Your task to perform on an android device: turn off translation in the chrome app Image 0: 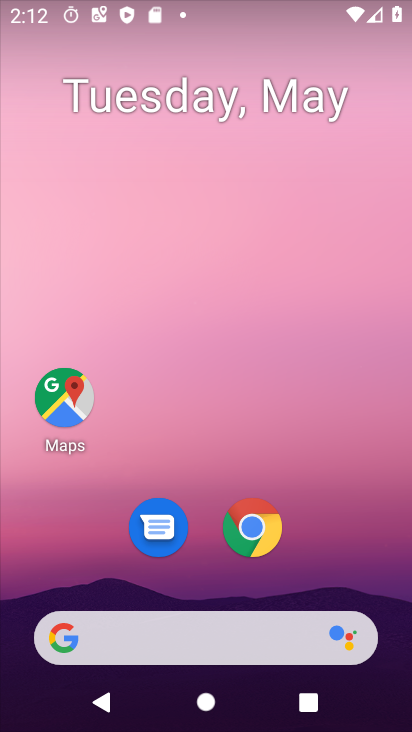
Step 0: drag from (241, 635) to (246, 199)
Your task to perform on an android device: turn off translation in the chrome app Image 1: 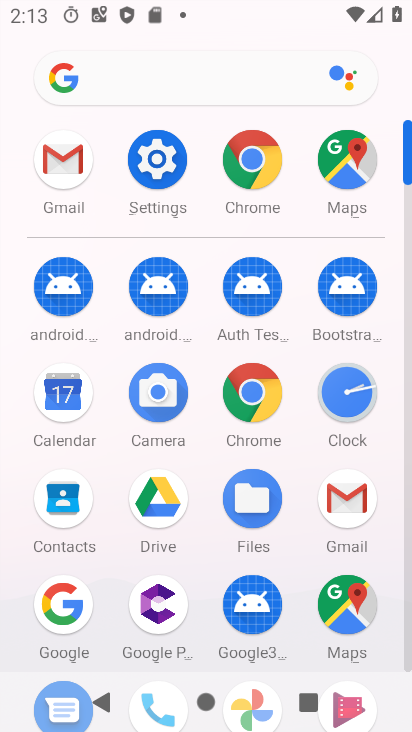
Step 1: click (235, 394)
Your task to perform on an android device: turn off translation in the chrome app Image 2: 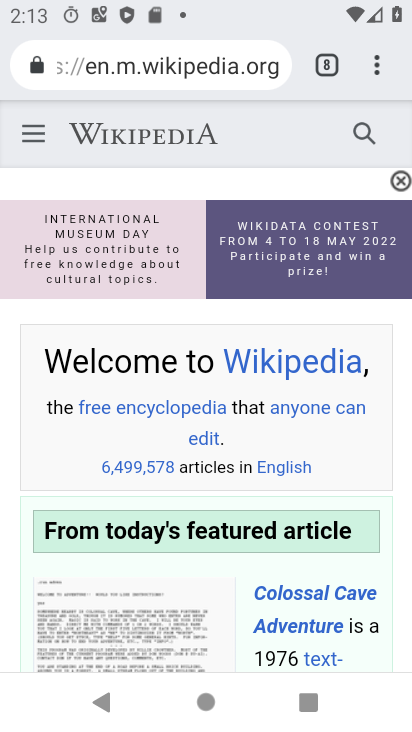
Step 2: click (369, 77)
Your task to perform on an android device: turn off translation in the chrome app Image 3: 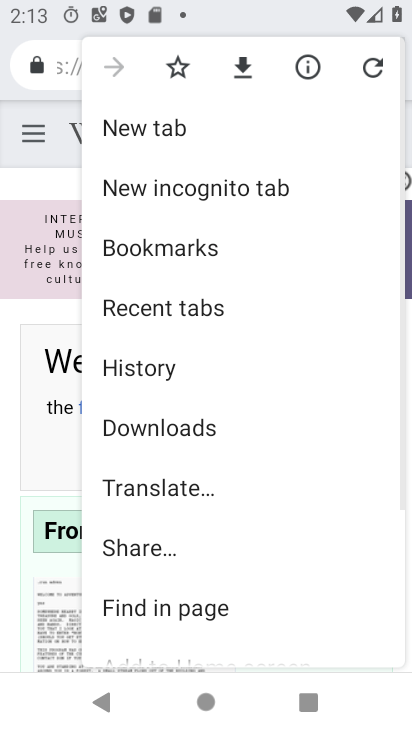
Step 3: drag from (172, 474) to (290, 263)
Your task to perform on an android device: turn off translation in the chrome app Image 4: 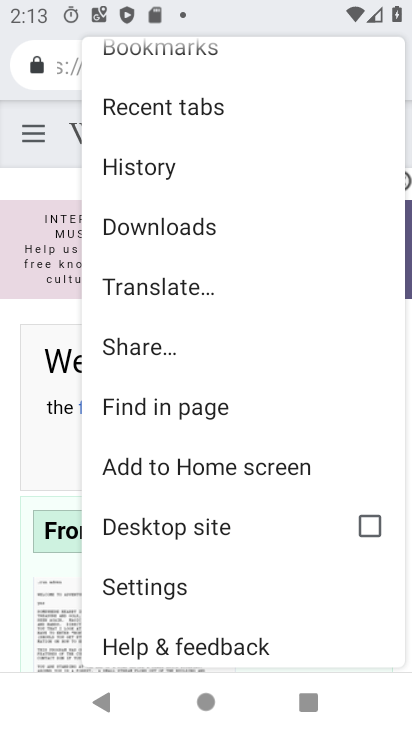
Step 4: click (146, 590)
Your task to perform on an android device: turn off translation in the chrome app Image 5: 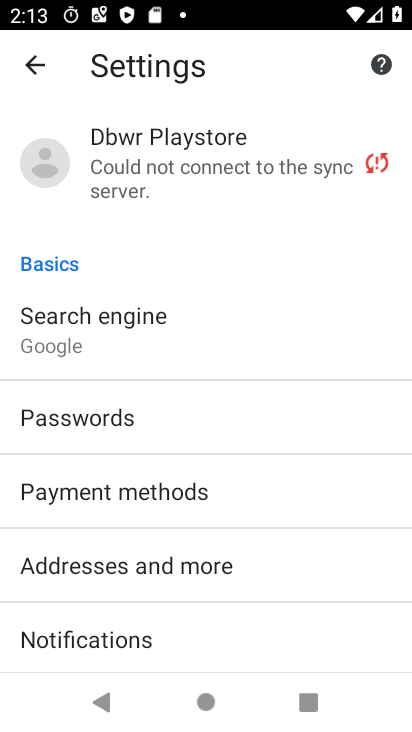
Step 5: drag from (163, 572) to (237, 337)
Your task to perform on an android device: turn off translation in the chrome app Image 6: 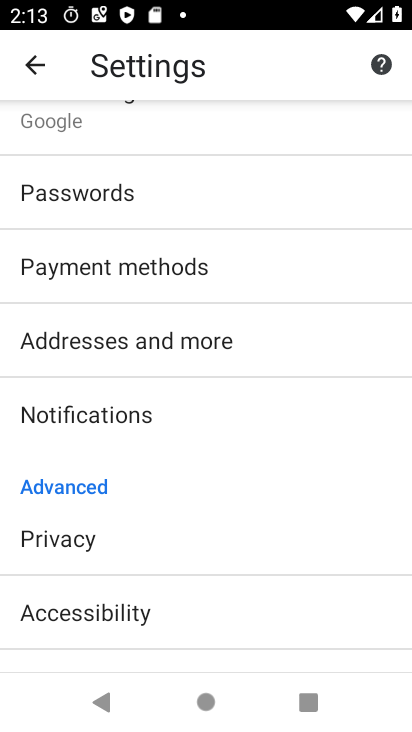
Step 6: drag from (118, 627) to (216, 420)
Your task to perform on an android device: turn off translation in the chrome app Image 7: 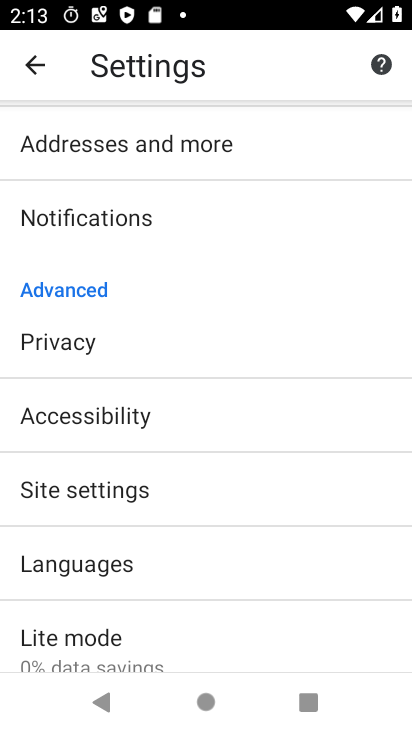
Step 7: click (96, 563)
Your task to perform on an android device: turn off translation in the chrome app Image 8: 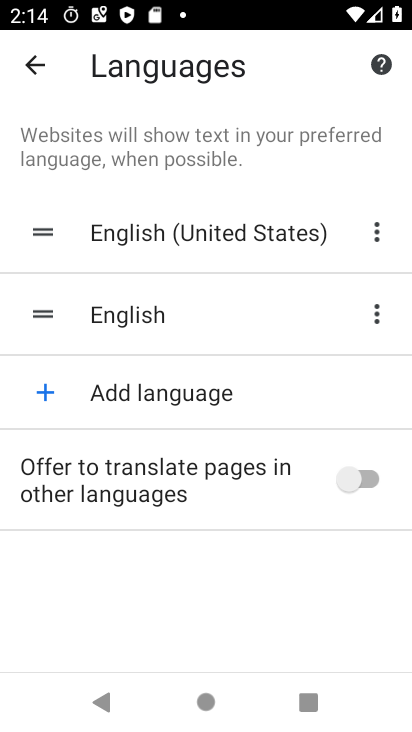
Step 8: click (319, 486)
Your task to perform on an android device: turn off translation in the chrome app Image 9: 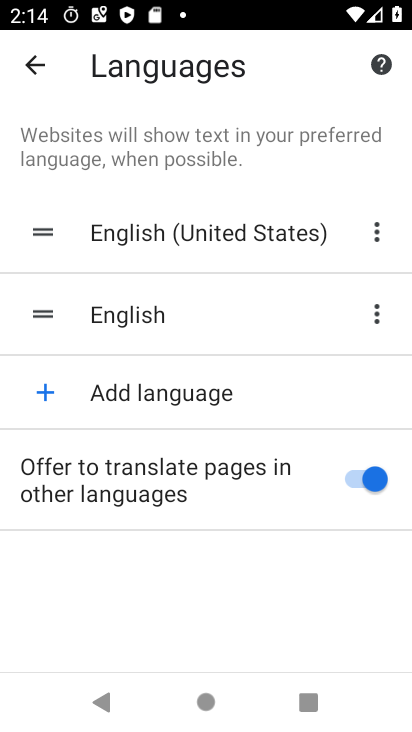
Step 9: click (319, 486)
Your task to perform on an android device: turn off translation in the chrome app Image 10: 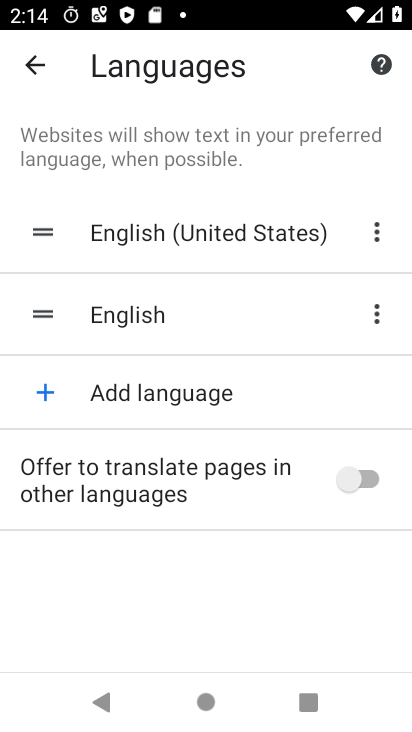
Step 10: task complete